Your task to perform on an android device: Go to notification settings Image 0: 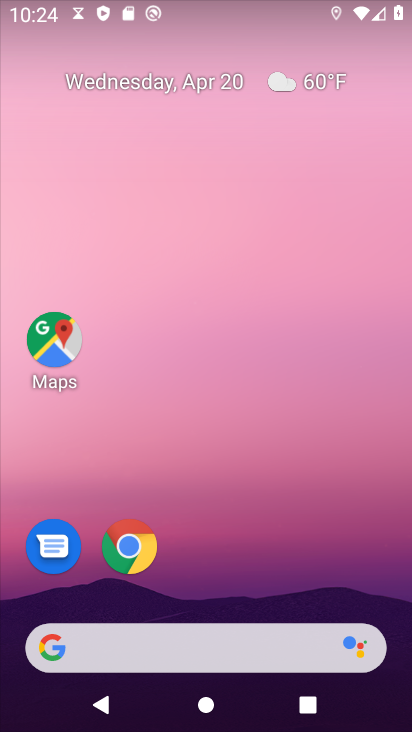
Step 0: drag from (233, 560) to (203, 40)
Your task to perform on an android device: Go to notification settings Image 1: 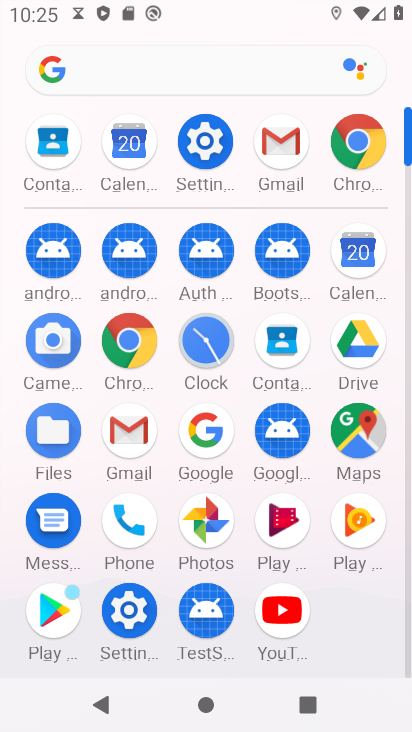
Step 1: click (211, 147)
Your task to perform on an android device: Go to notification settings Image 2: 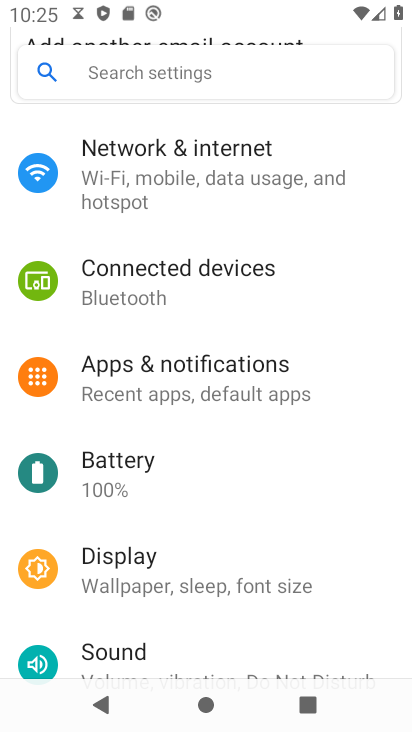
Step 2: drag from (211, 530) to (212, 180)
Your task to perform on an android device: Go to notification settings Image 3: 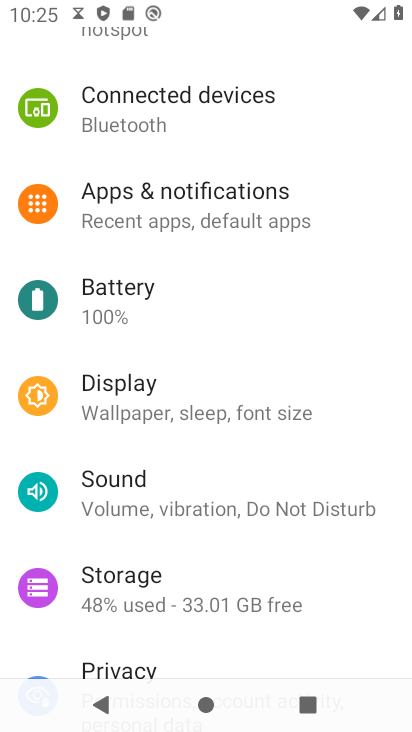
Step 3: click (196, 184)
Your task to perform on an android device: Go to notification settings Image 4: 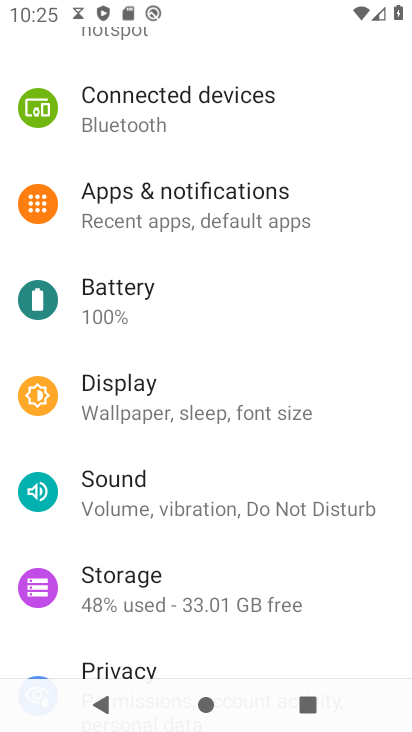
Step 4: click (207, 209)
Your task to perform on an android device: Go to notification settings Image 5: 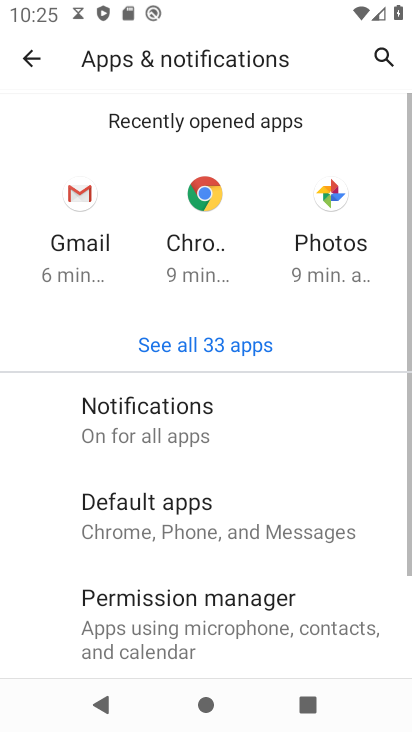
Step 5: task complete